Your task to perform on an android device: open wifi settings Image 0: 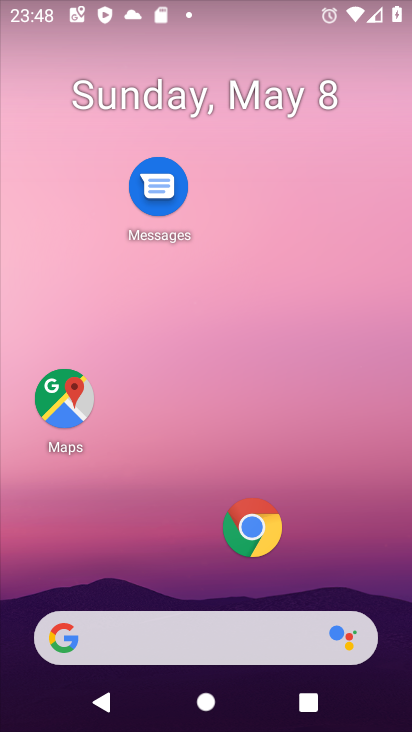
Step 0: drag from (232, 573) to (243, 91)
Your task to perform on an android device: open wifi settings Image 1: 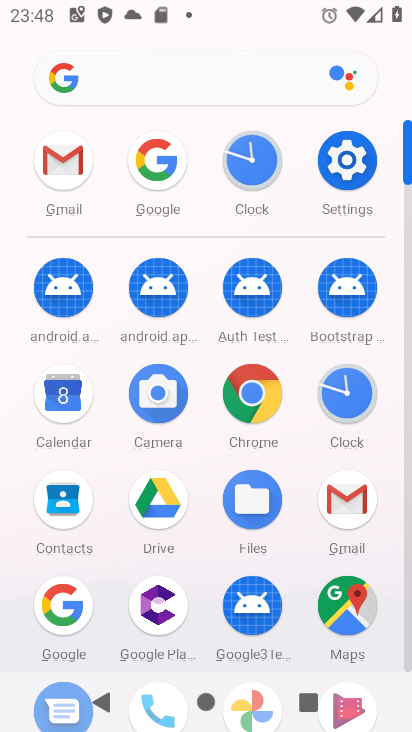
Step 1: click (351, 166)
Your task to perform on an android device: open wifi settings Image 2: 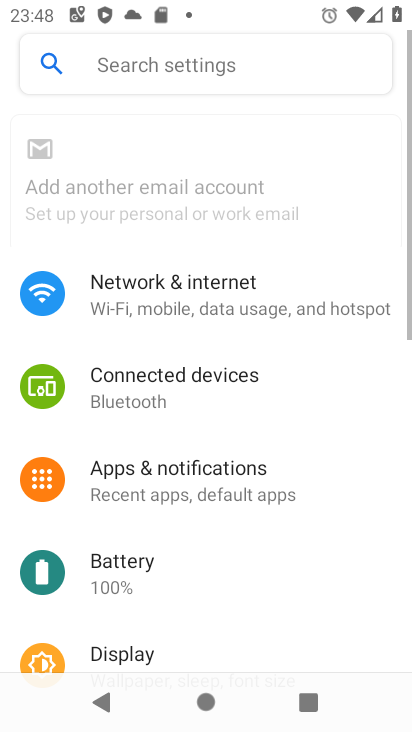
Step 2: click (169, 171)
Your task to perform on an android device: open wifi settings Image 3: 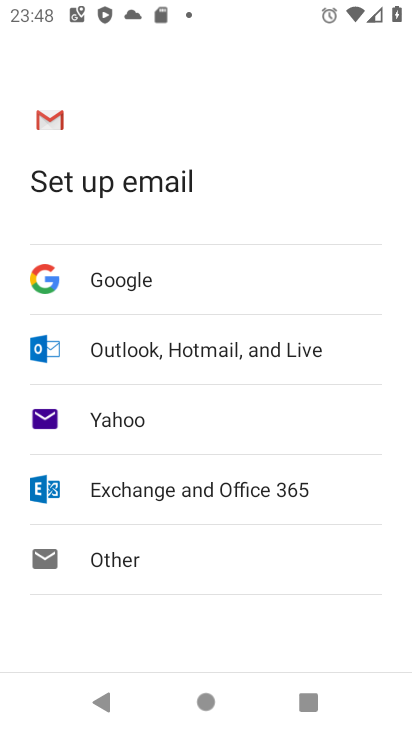
Step 3: press back button
Your task to perform on an android device: open wifi settings Image 4: 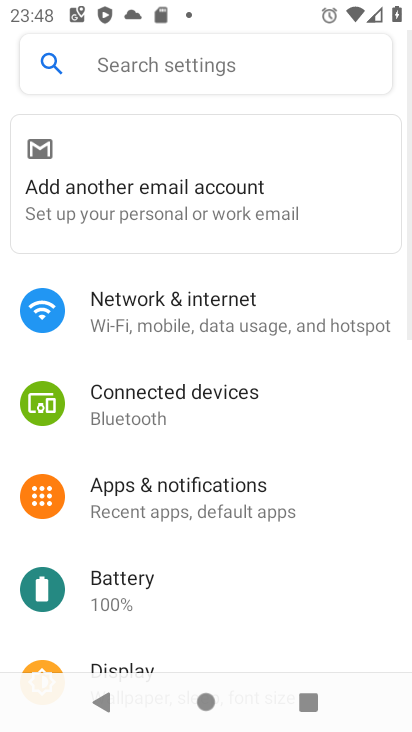
Step 4: click (173, 300)
Your task to perform on an android device: open wifi settings Image 5: 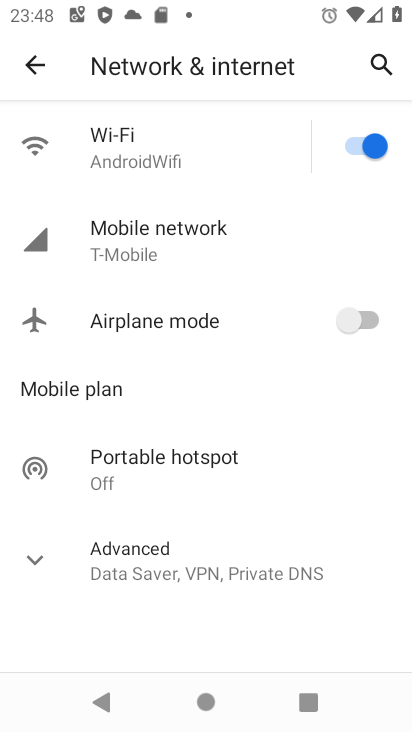
Step 5: click (174, 140)
Your task to perform on an android device: open wifi settings Image 6: 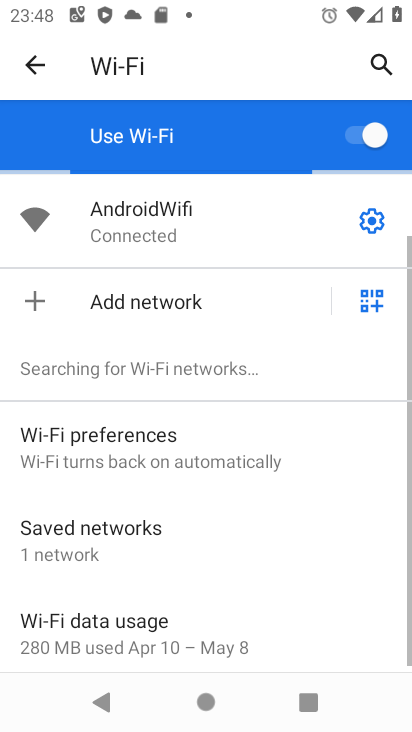
Step 6: click (168, 232)
Your task to perform on an android device: open wifi settings Image 7: 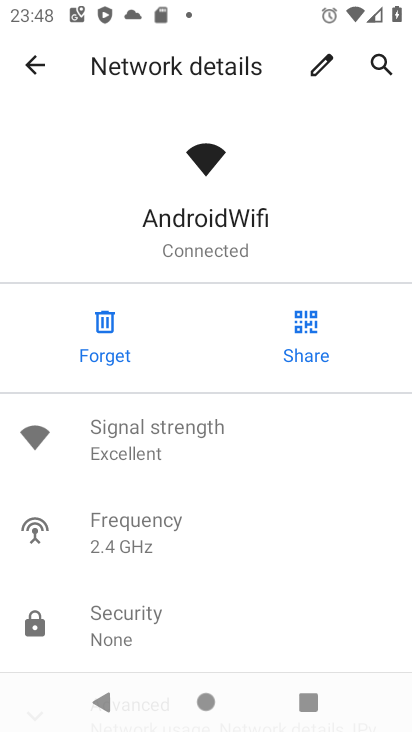
Step 7: task complete